Your task to perform on an android device: show emergency info Image 0: 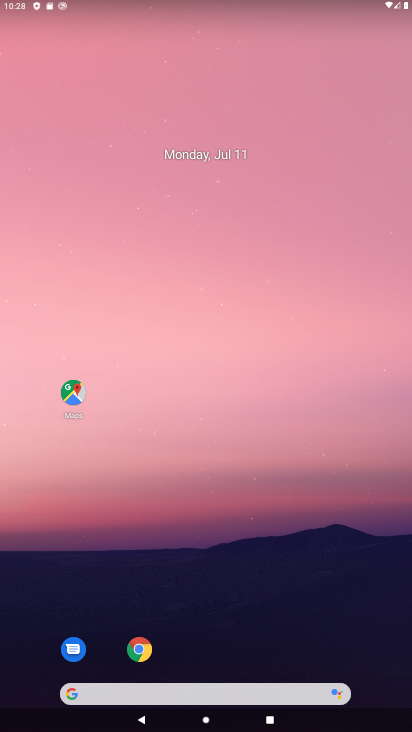
Step 0: drag from (246, 677) to (330, 148)
Your task to perform on an android device: show emergency info Image 1: 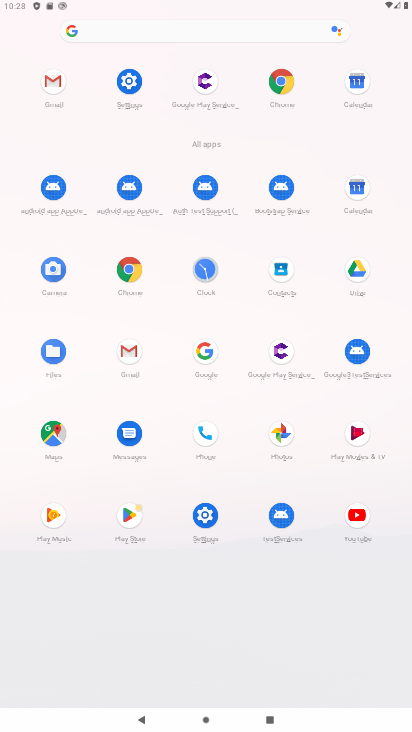
Step 1: click (128, 83)
Your task to perform on an android device: show emergency info Image 2: 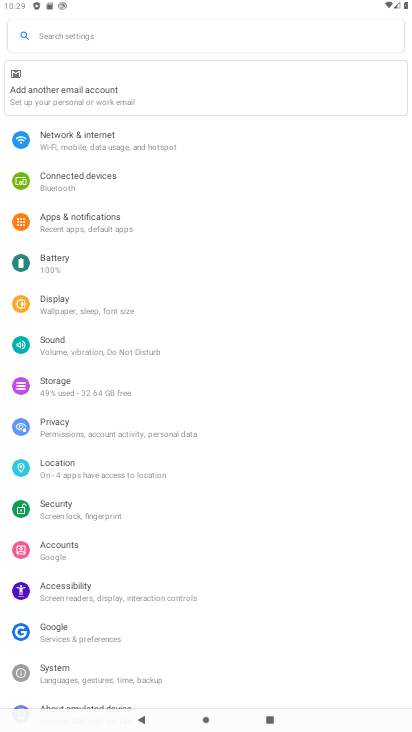
Step 2: drag from (103, 623) to (225, 440)
Your task to perform on an android device: show emergency info Image 3: 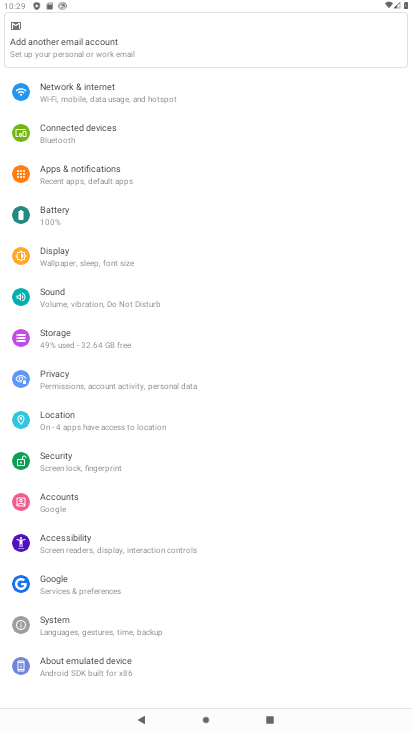
Step 3: click (112, 667)
Your task to perform on an android device: show emergency info Image 4: 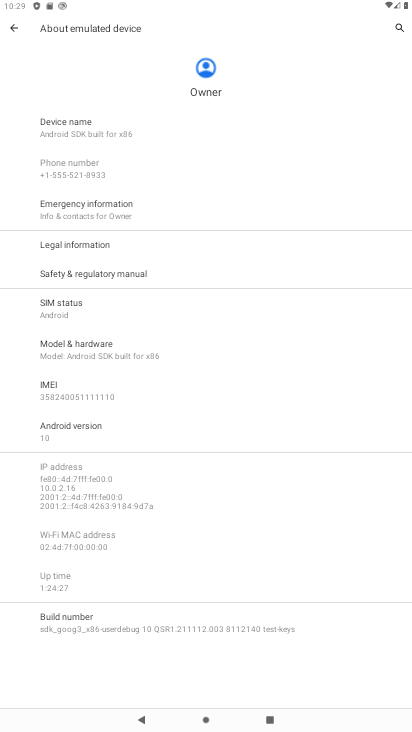
Step 4: click (98, 204)
Your task to perform on an android device: show emergency info Image 5: 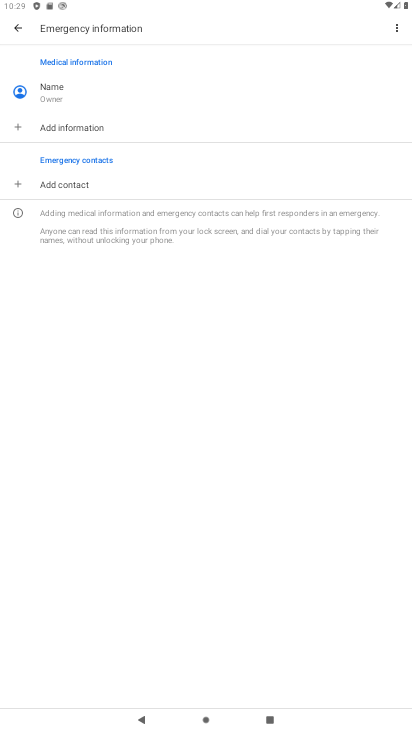
Step 5: task complete